Your task to perform on an android device: Is it going to rain today? Image 0: 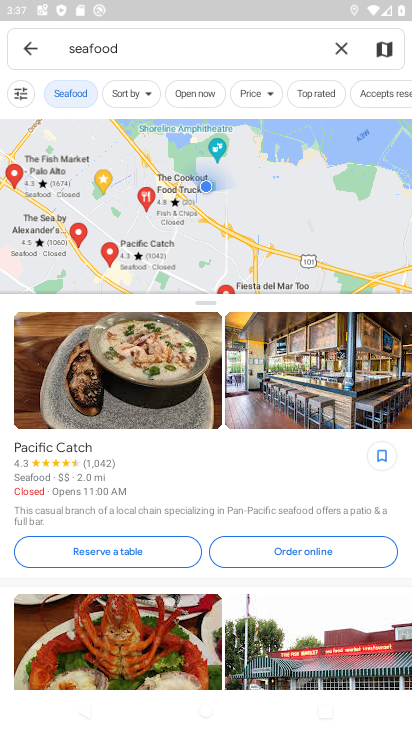
Step 0: press home button
Your task to perform on an android device: Is it going to rain today? Image 1: 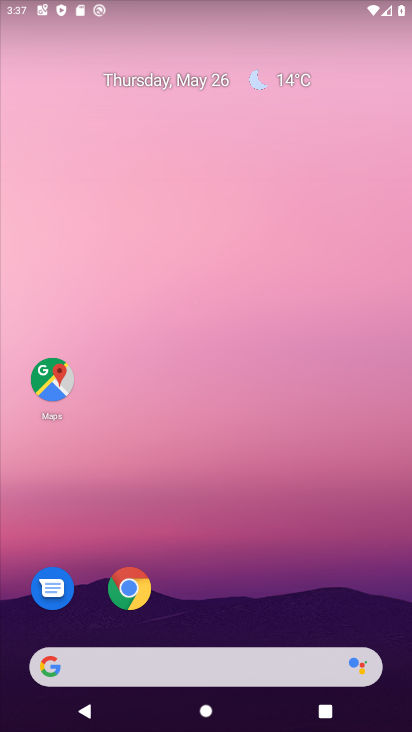
Step 1: click (138, 660)
Your task to perform on an android device: Is it going to rain today? Image 2: 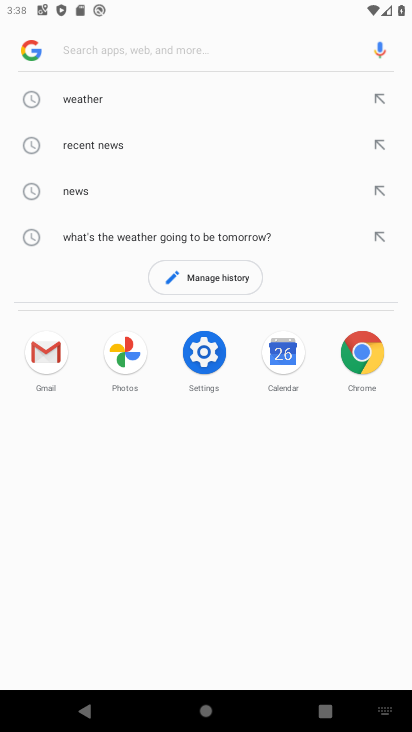
Step 2: click (104, 88)
Your task to perform on an android device: Is it going to rain today? Image 3: 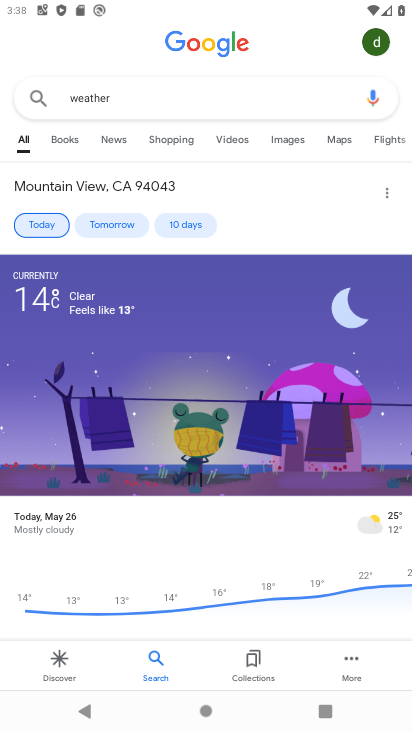
Step 3: press home button
Your task to perform on an android device: Is it going to rain today? Image 4: 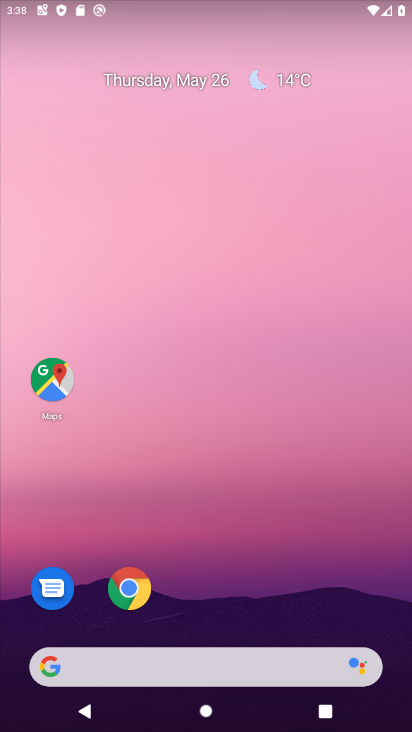
Step 4: drag from (259, 590) to (304, 118)
Your task to perform on an android device: Is it going to rain today? Image 5: 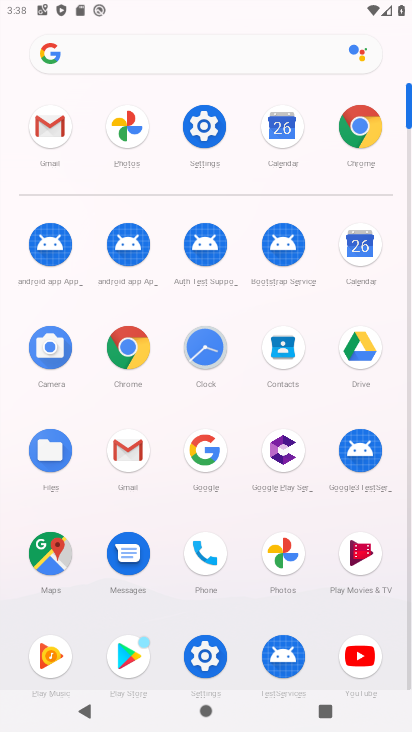
Step 5: click (165, 56)
Your task to perform on an android device: Is it going to rain today? Image 6: 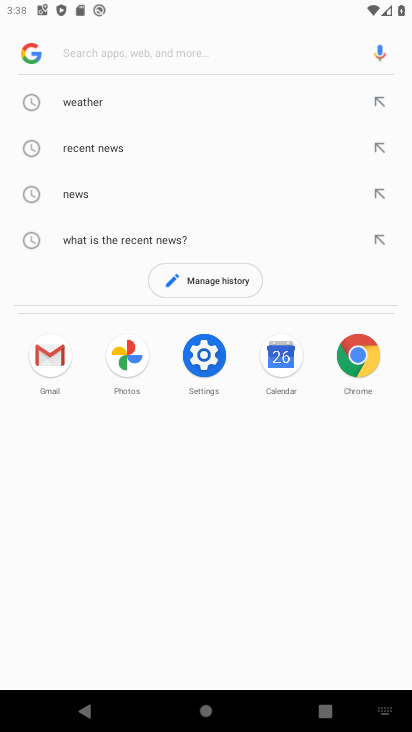
Step 6: click (143, 94)
Your task to perform on an android device: Is it going to rain today? Image 7: 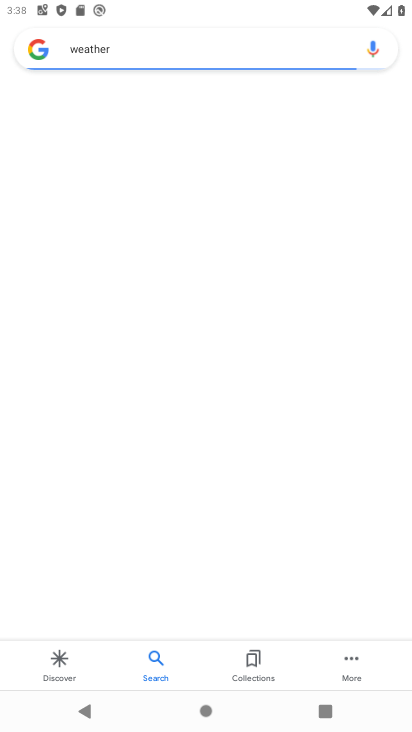
Step 7: task complete